Your task to perform on an android device: When is my next appointment? Image 0: 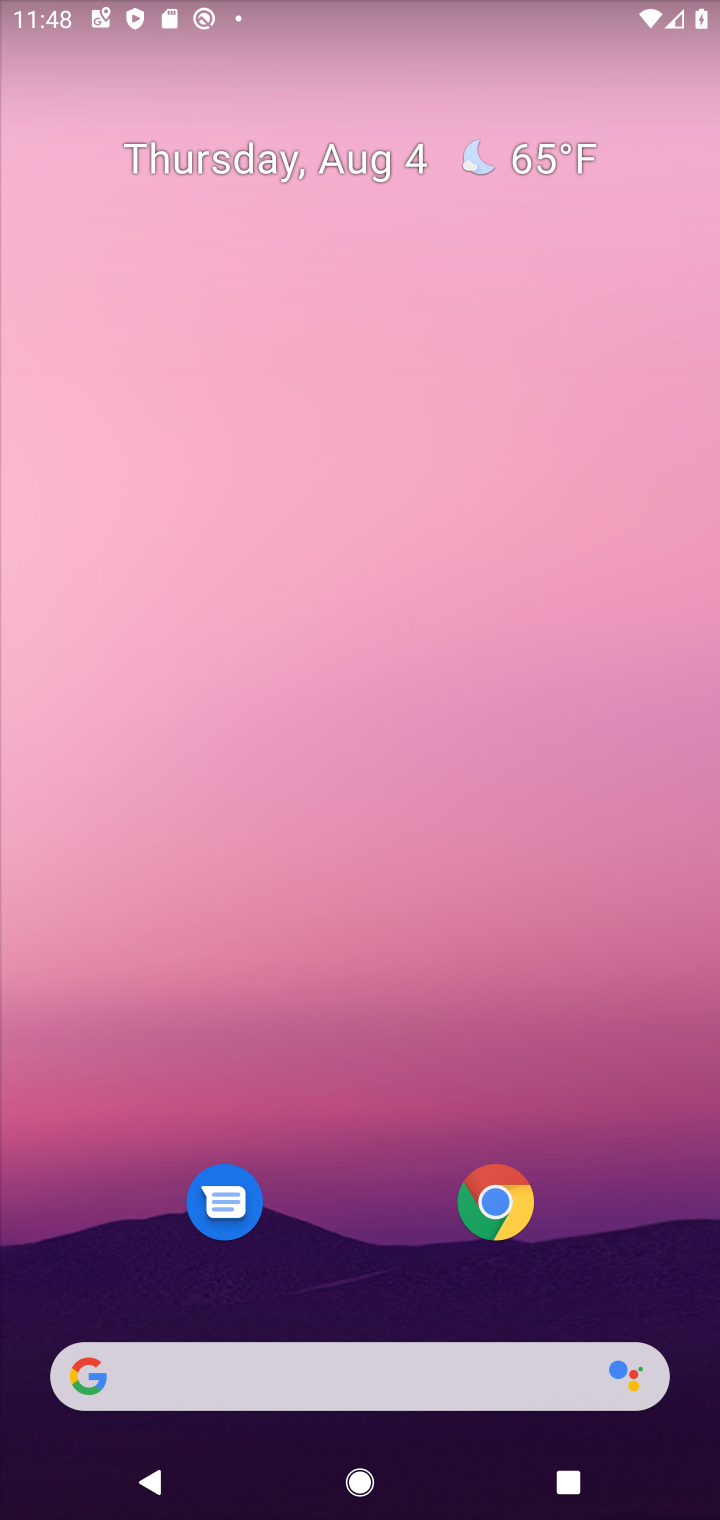
Step 0: drag from (318, 1231) to (316, 134)
Your task to perform on an android device: When is my next appointment? Image 1: 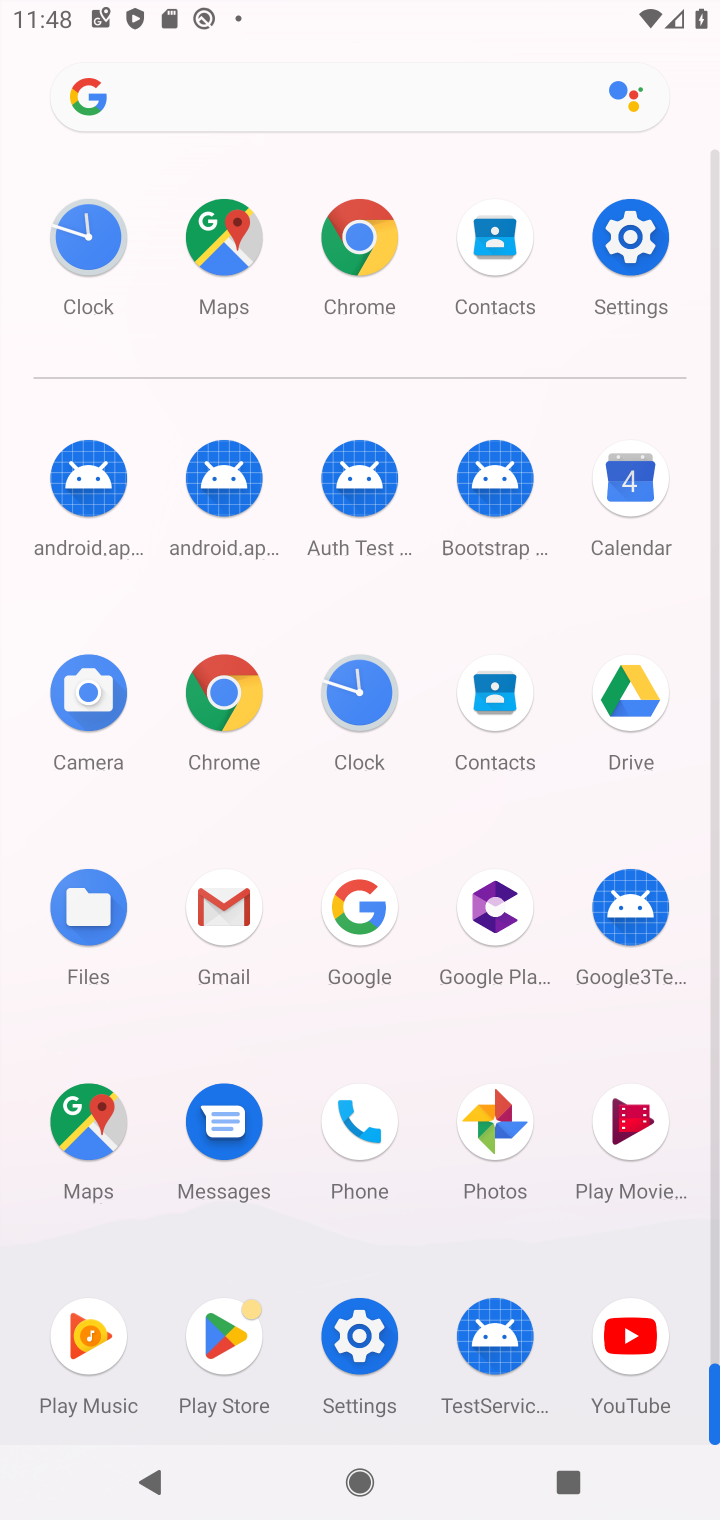
Step 1: click (629, 492)
Your task to perform on an android device: When is my next appointment? Image 2: 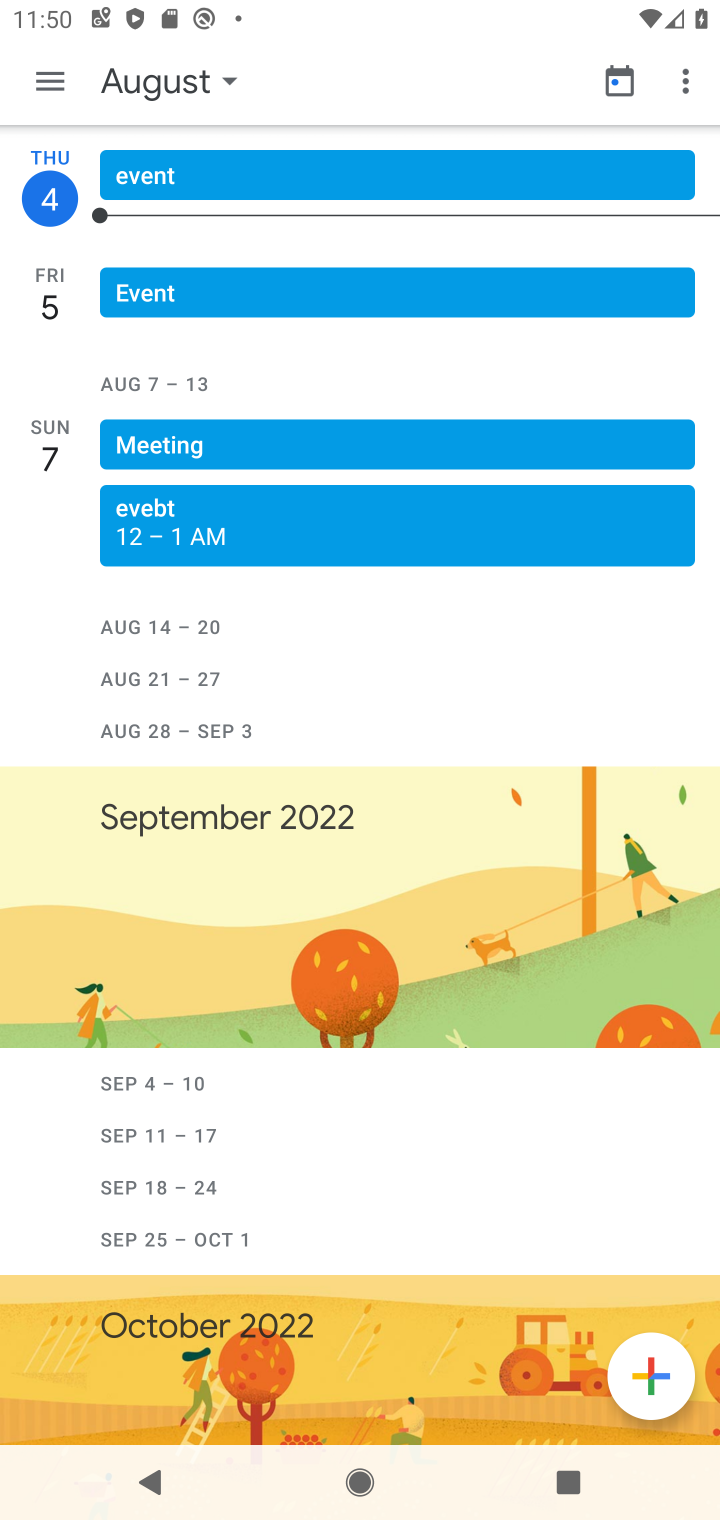
Step 2: task complete